Your task to perform on an android device: Go to Yahoo.com Image 0: 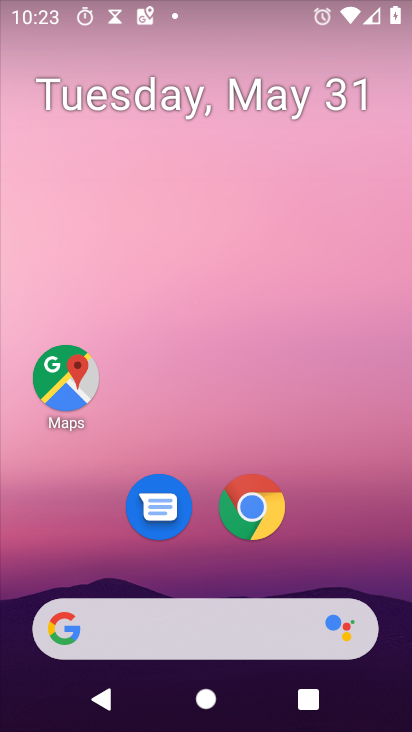
Step 0: click (271, 507)
Your task to perform on an android device: Go to Yahoo.com Image 1: 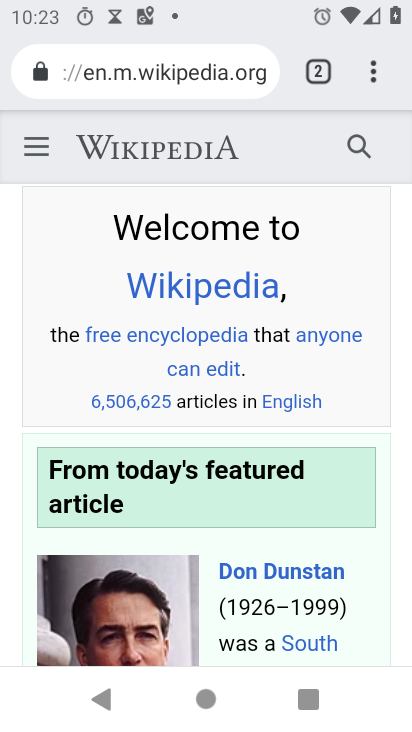
Step 1: click (321, 65)
Your task to perform on an android device: Go to Yahoo.com Image 2: 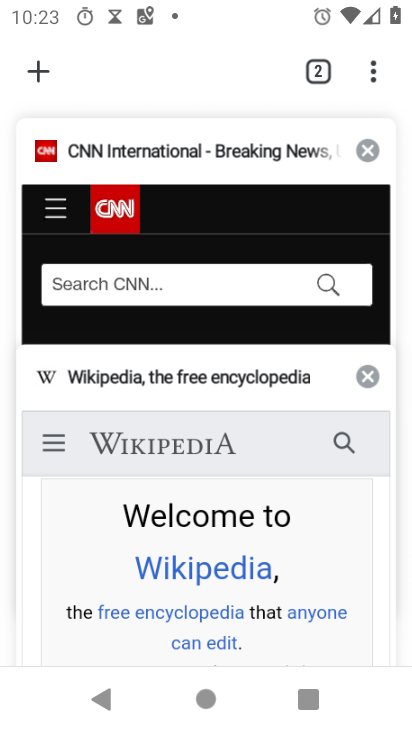
Step 2: click (364, 144)
Your task to perform on an android device: Go to Yahoo.com Image 3: 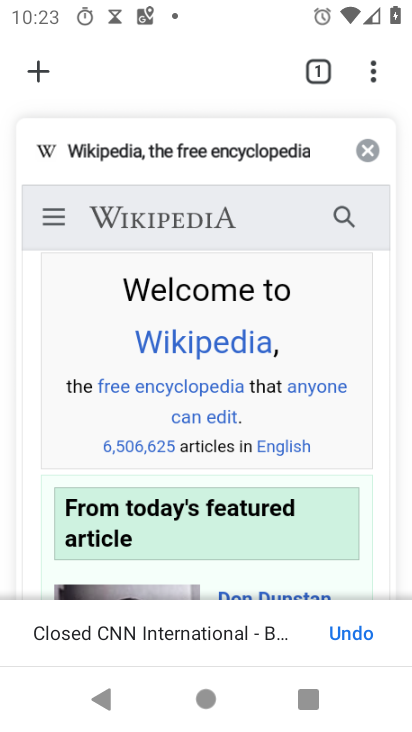
Step 3: click (369, 142)
Your task to perform on an android device: Go to Yahoo.com Image 4: 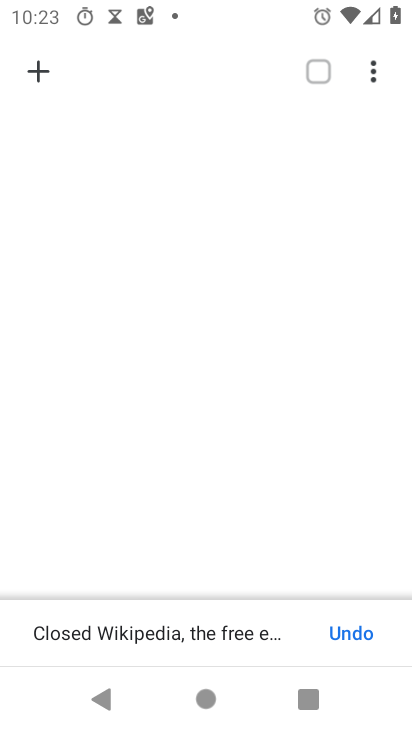
Step 4: click (46, 76)
Your task to perform on an android device: Go to Yahoo.com Image 5: 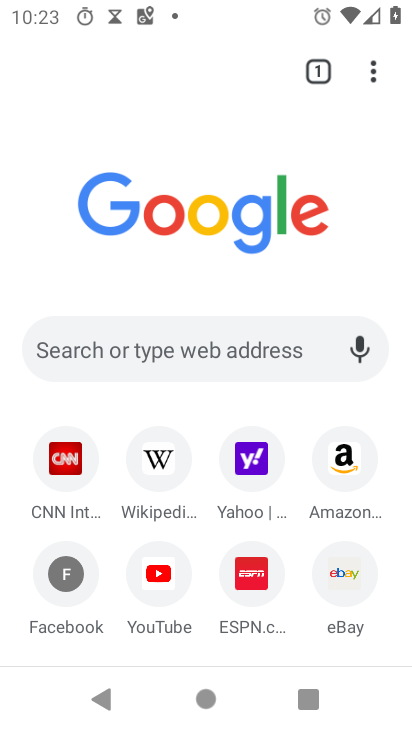
Step 5: click (237, 456)
Your task to perform on an android device: Go to Yahoo.com Image 6: 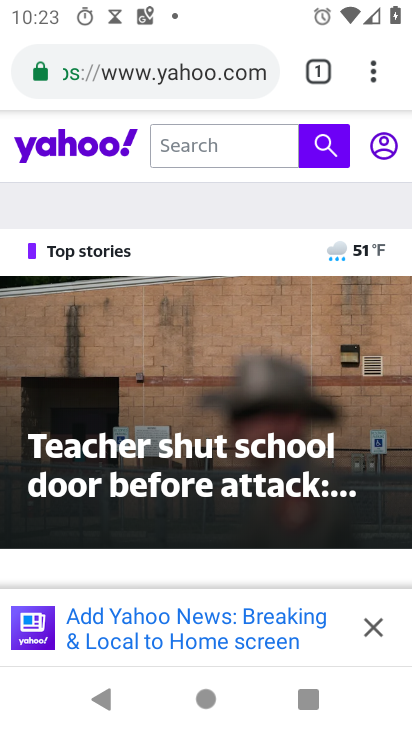
Step 6: task complete